Your task to perform on an android device: delete the emails in spam in the gmail app Image 0: 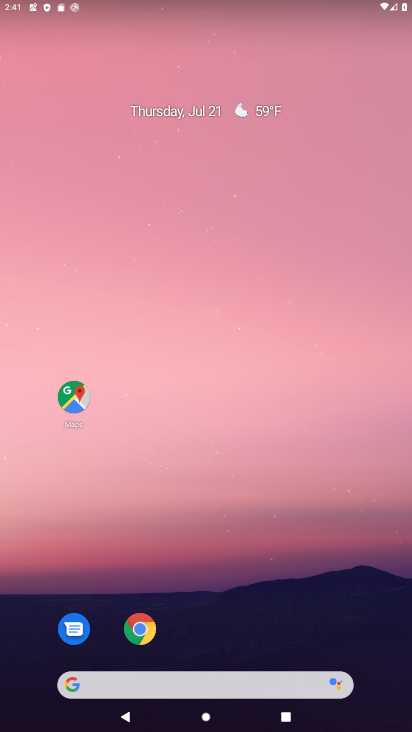
Step 0: drag from (224, 696) to (220, 107)
Your task to perform on an android device: delete the emails in spam in the gmail app Image 1: 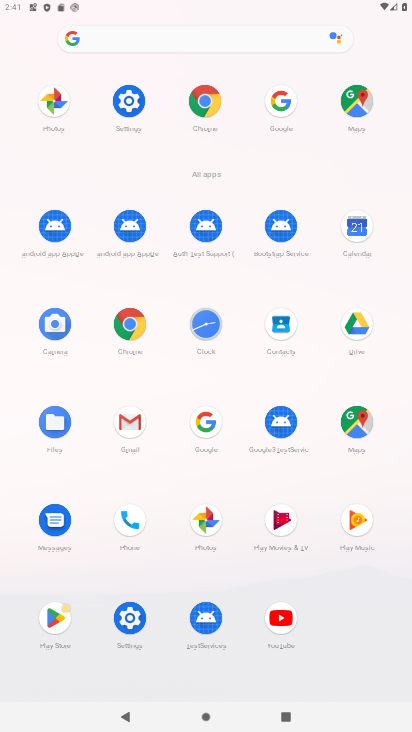
Step 1: click (131, 422)
Your task to perform on an android device: delete the emails in spam in the gmail app Image 2: 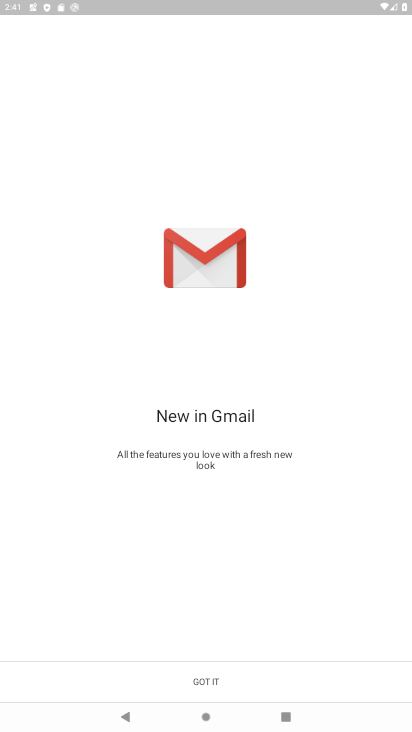
Step 2: click (189, 678)
Your task to perform on an android device: delete the emails in spam in the gmail app Image 3: 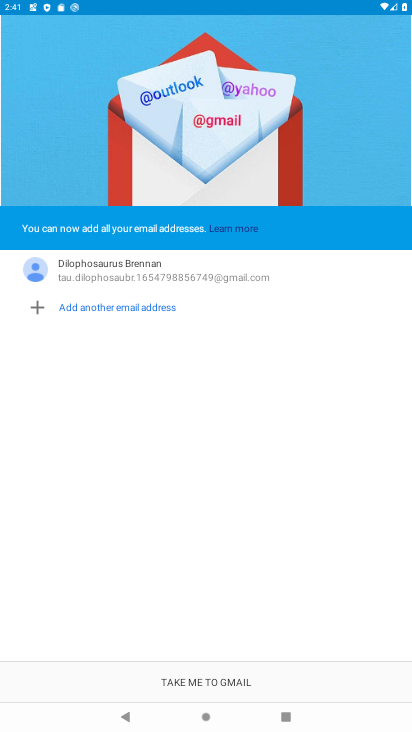
Step 3: click (190, 681)
Your task to perform on an android device: delete the emails in spam in the gmail app Image 4: 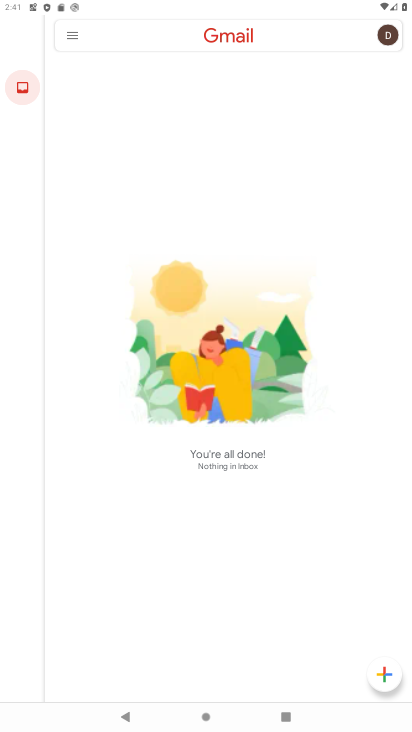
Step 4: click (26, 32)
Your task to perform on an android device: delete the emails in spam in the gmail app Image 5: 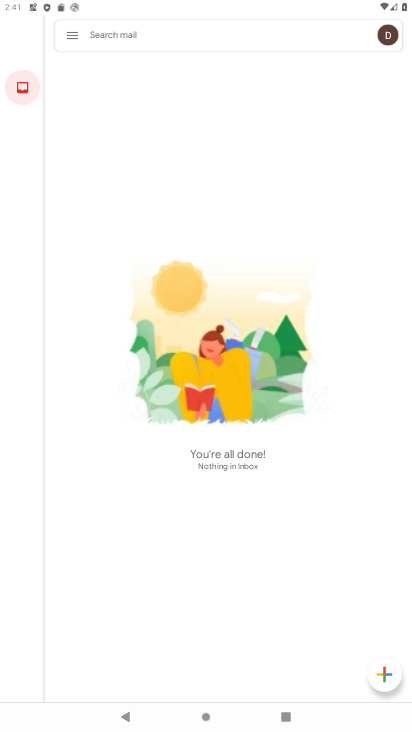
Step 5: click (74, 29)
Your task to perform on an android device: delete the emails in spam in the gmail app Image 6: 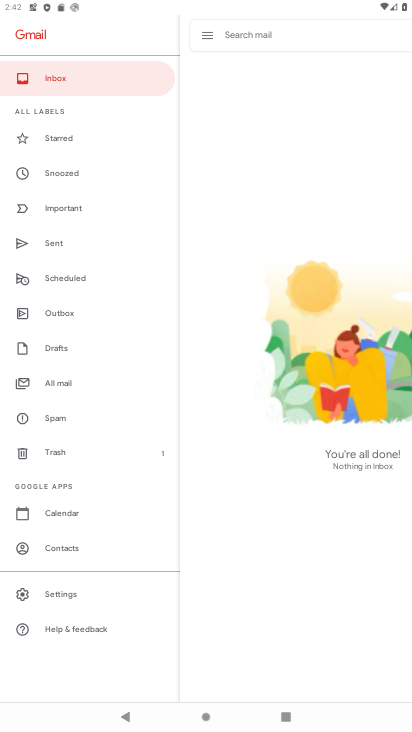
Step 6: click (53, 417)
Your task to perform on an android device: delete the emails in spam in the gmail app Image 7: 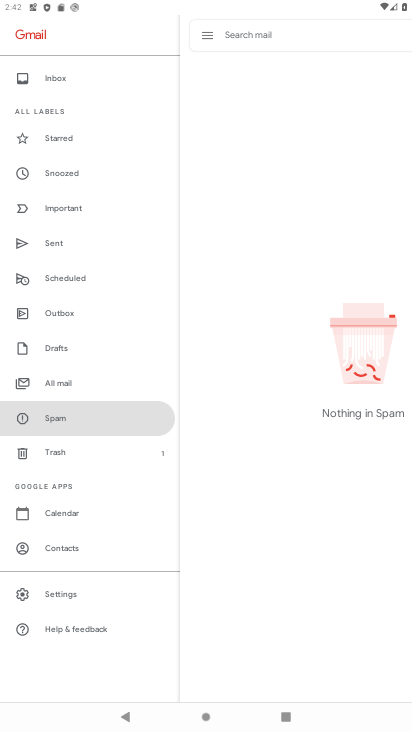
Step 7: task complete